Your task to perform on an android device: Is it going to rain today? Image 0: 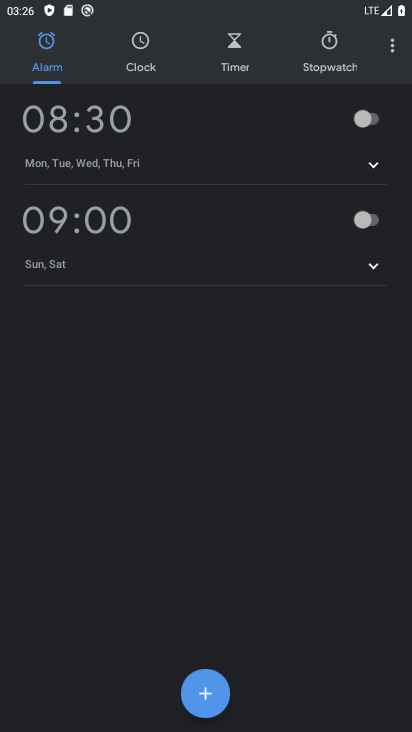
Step 0: press home button
Your task to perform on an android device: Is it going to rain today? Image 1: 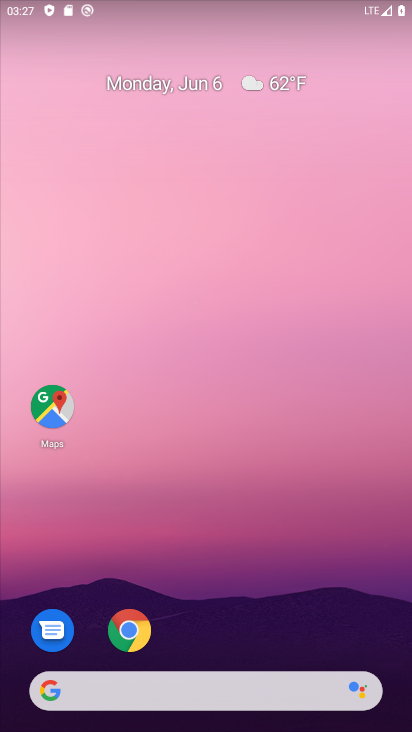
Step 1: click (137, 625)
Your task to perform on an android device: Is it going to rain today? Image 2: 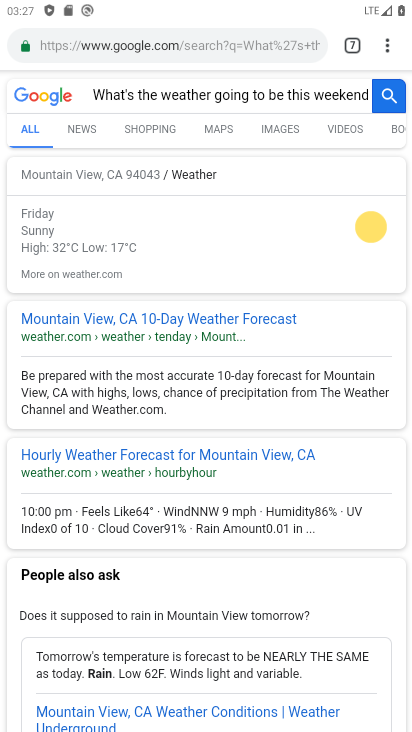
Step 2: click (126, 44)
Your task to perform on an android device: Is it going to rain today? Image 3: 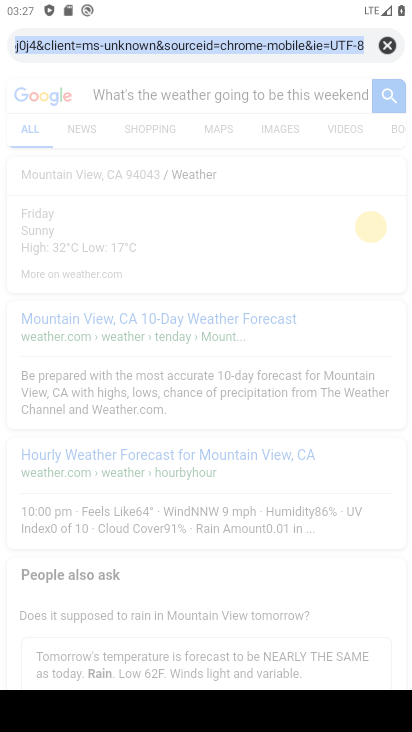
Step 3: type "Is it going to rain today?"
Your task to perform on an android device: Is it going to rain today? Image 4: 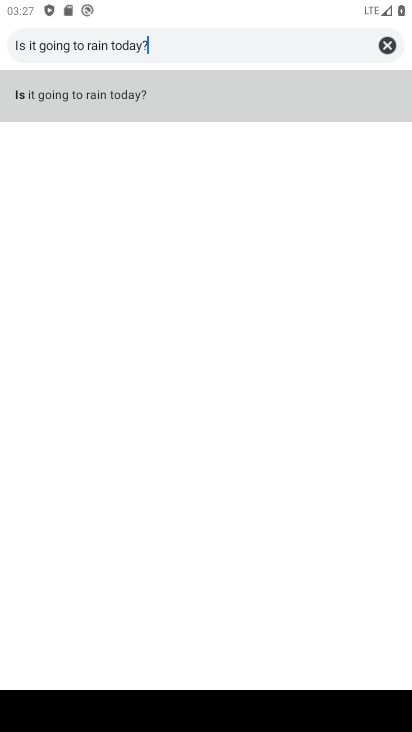
Step 4: type ""
Your task to perform on an android device: Is it going to rain today? Image 5: 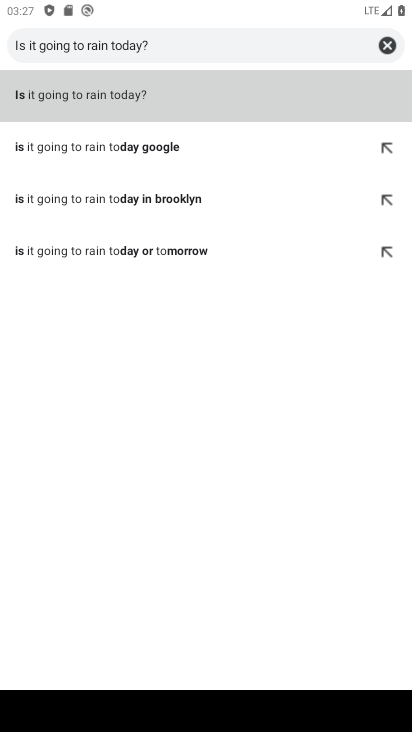
Step 5: click (191, 93)
Your task to perform on an android device: Is it going to rain today? Image 6: 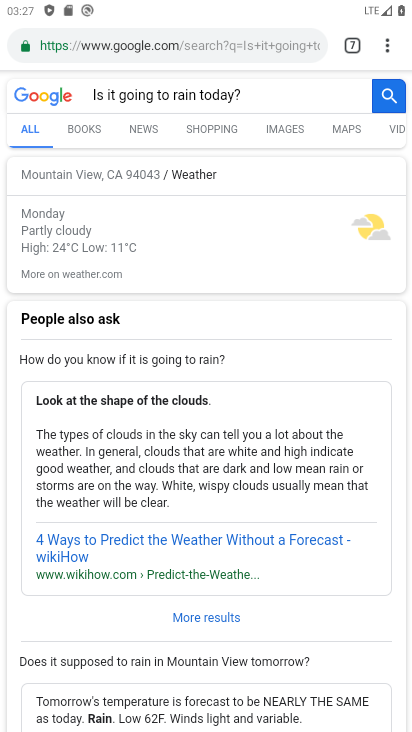
Step 6: task complete